Your task to perform on an android device: open app "Move to iOS" Image 0: 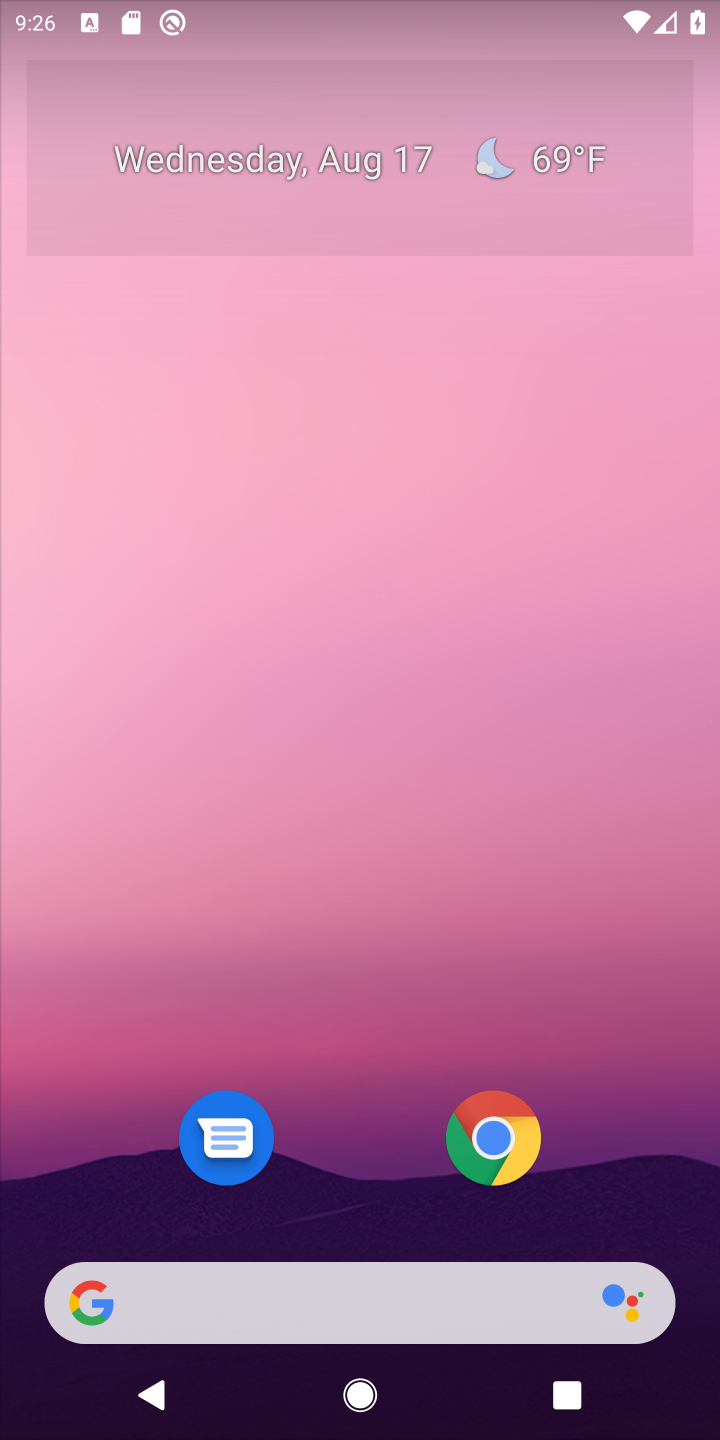
Step 0: drag from (410, 1173) to (403, 399)
Your task to perform on an android device: open app "Move to iOS" Image 1: 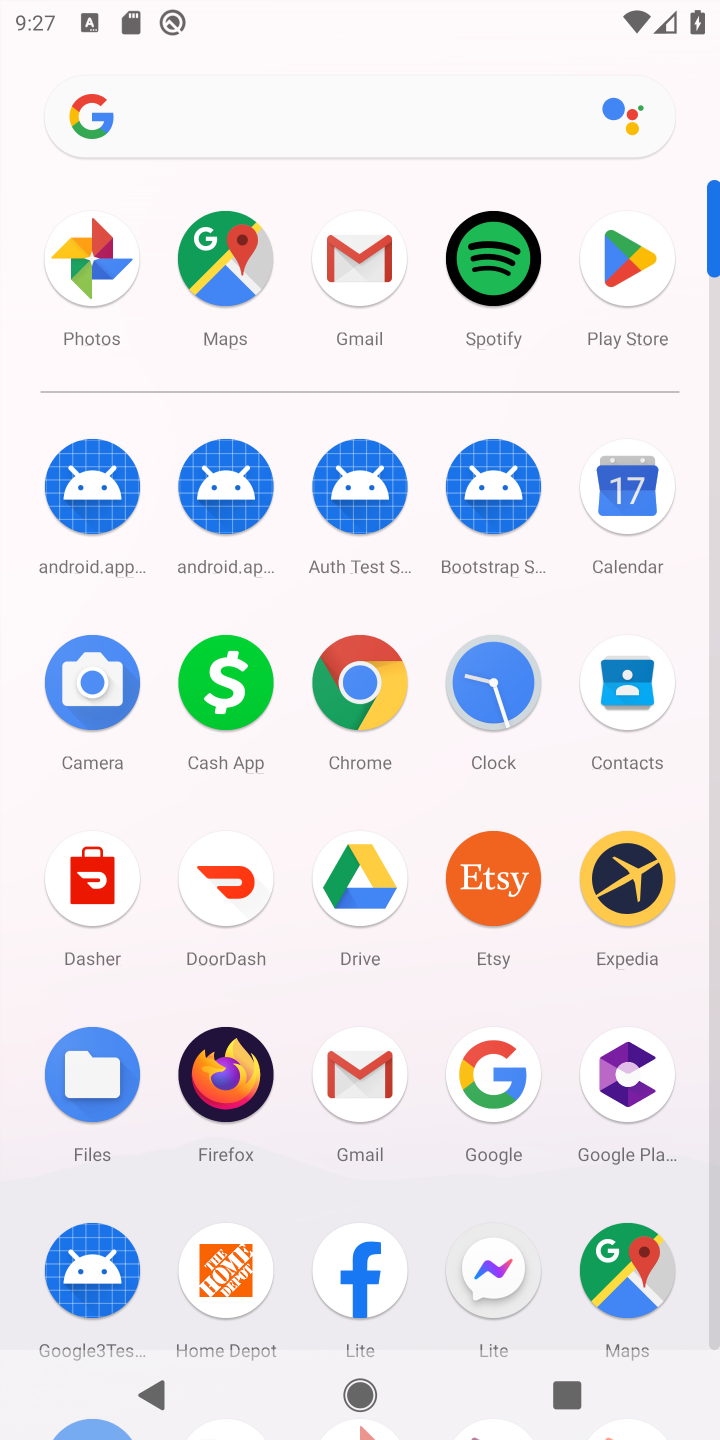
Step 1: click (616, 285)
Your task to perform on an android device: open app "Move to iOS" Image 2: 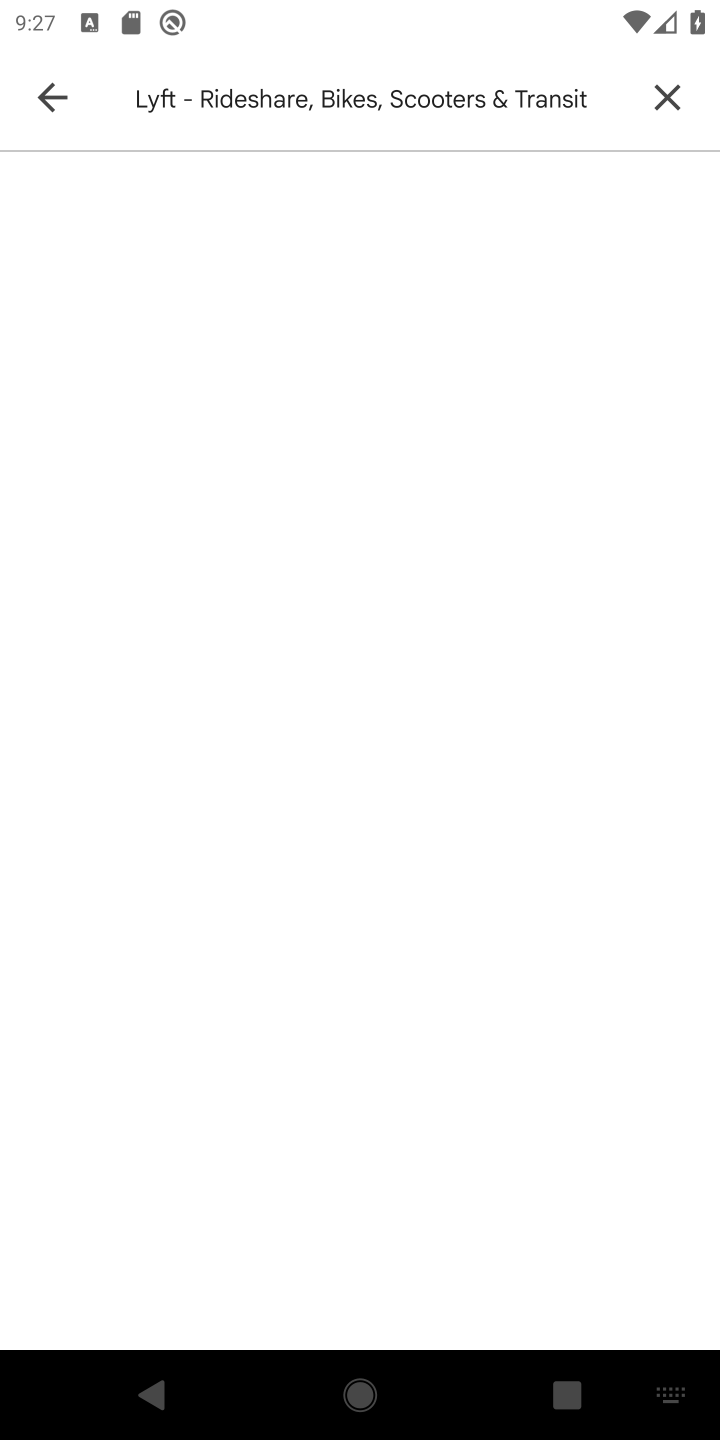
Step 2: click (649, 92)
Your task to perform on an android device: open app "Move to iOS" Image 3: 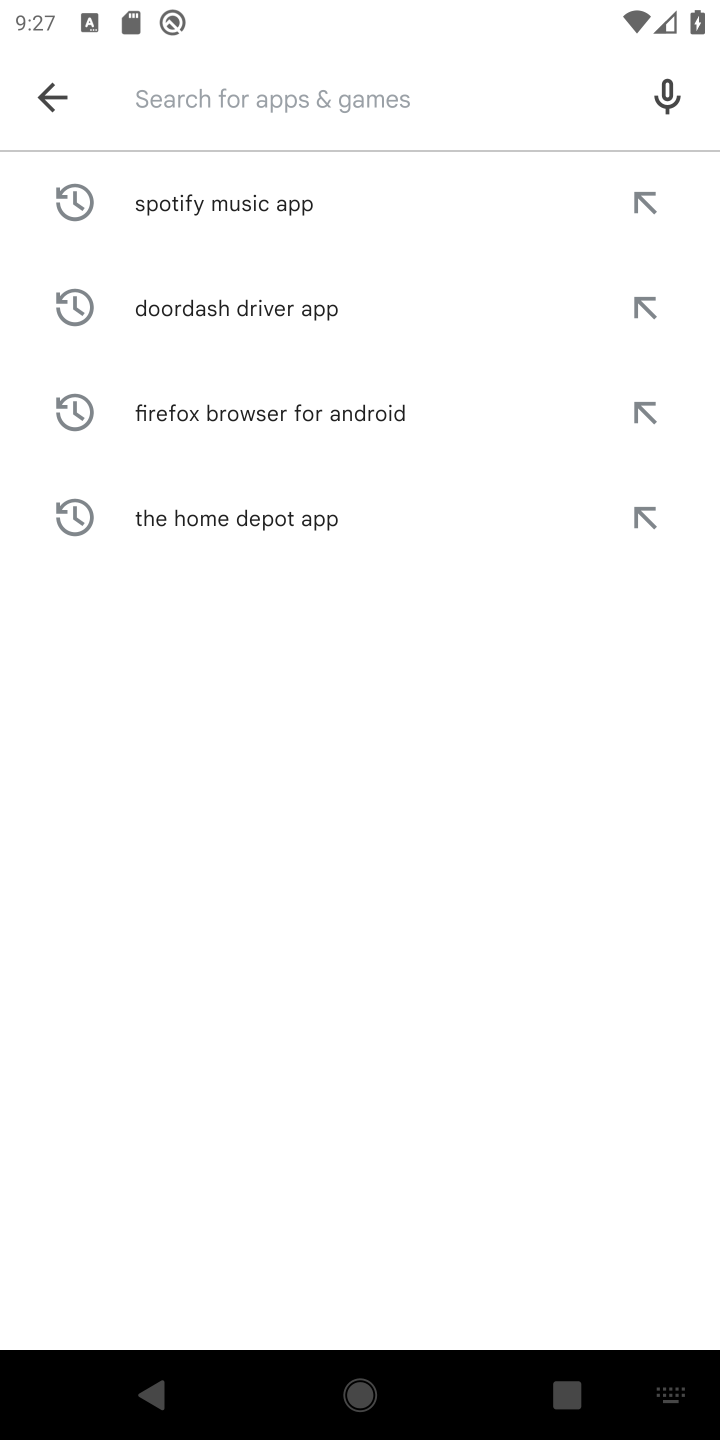
Step 3: click (388, 86)
Your task to perform on an android device: open app "Move to iOS" Image 4: 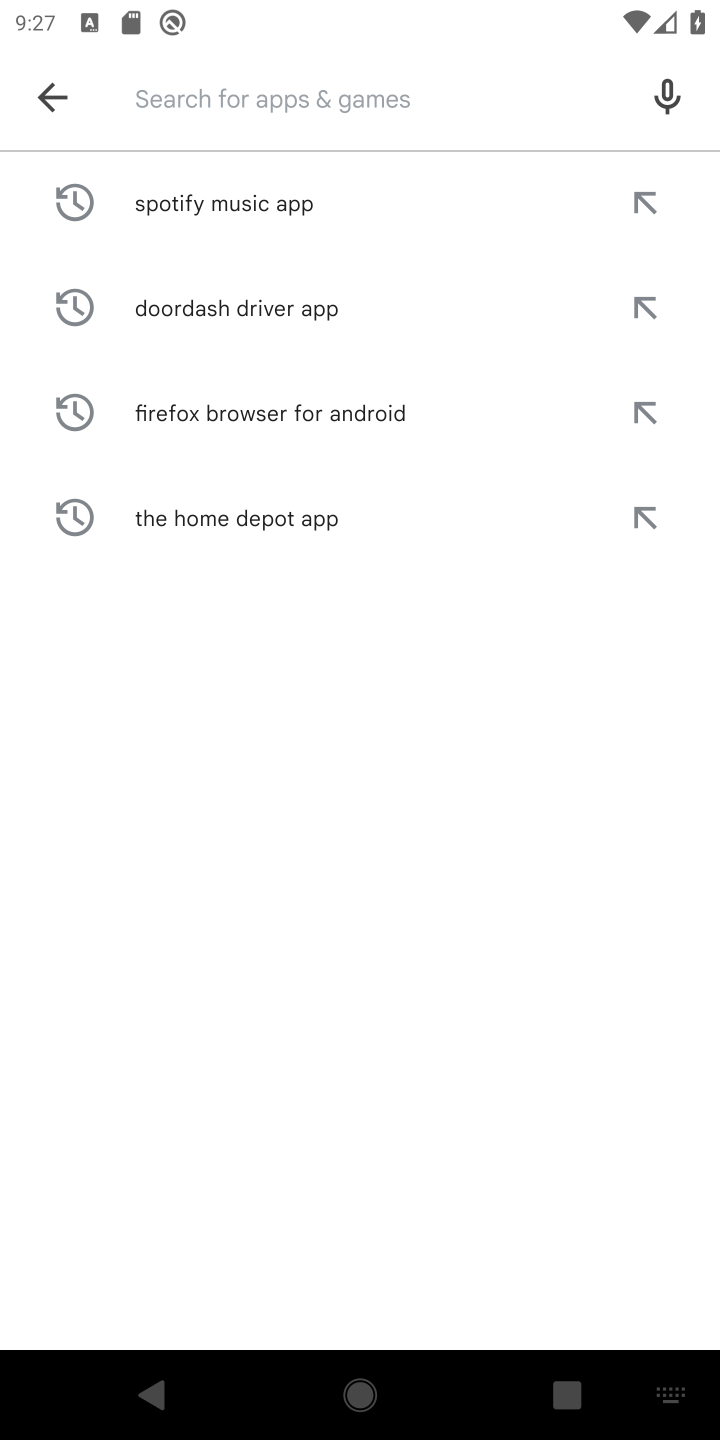
Step 4: type "ios "
Your task to perform on an android device: open app "Move to iOS" Image 5: 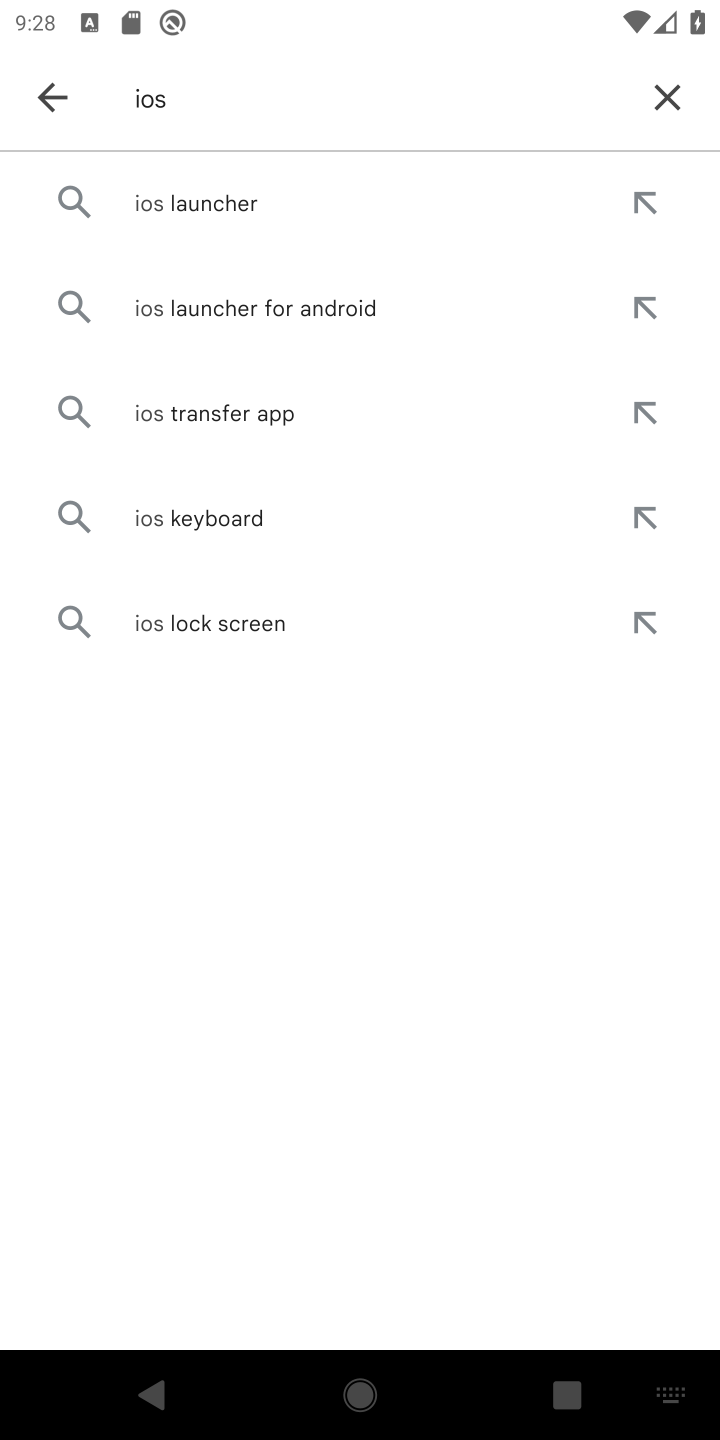
Step 5: click (251, 409)
Your task to perform on an android device: open app "Move to iOS" Image 6: 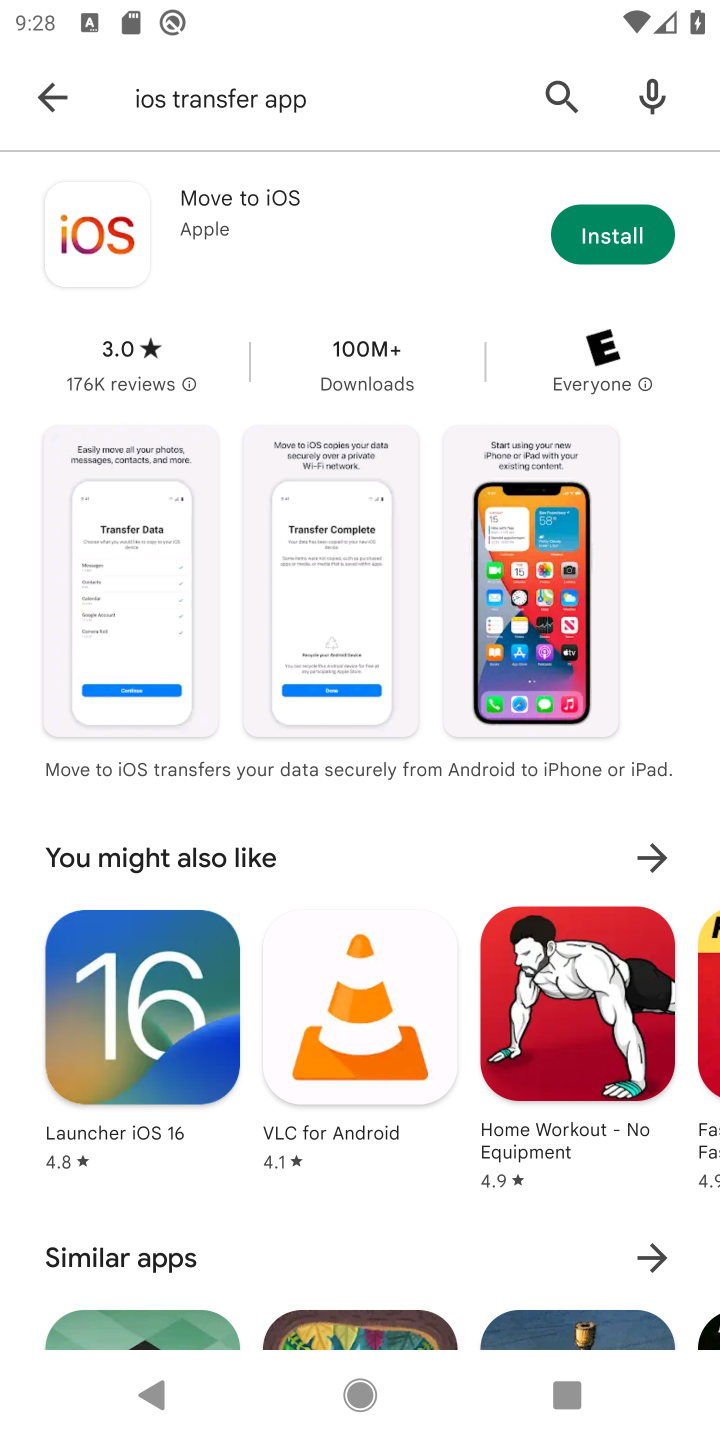
Step 6: click (567, 225)
Your task to perform on an android device: open app "Move to iOS" Image 7: 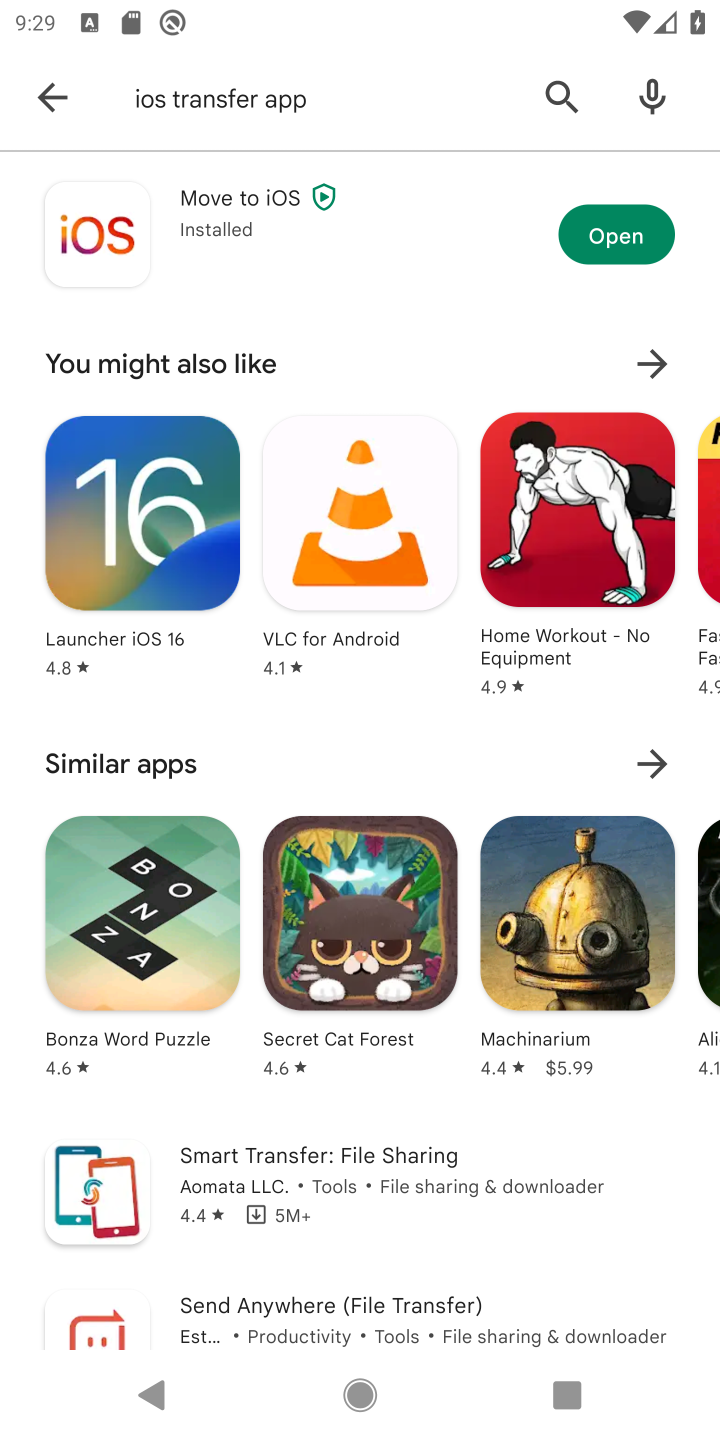
Step 7: click (600, 217)
Your task to perform on an android device: open app "Move to iOS" Image 8: 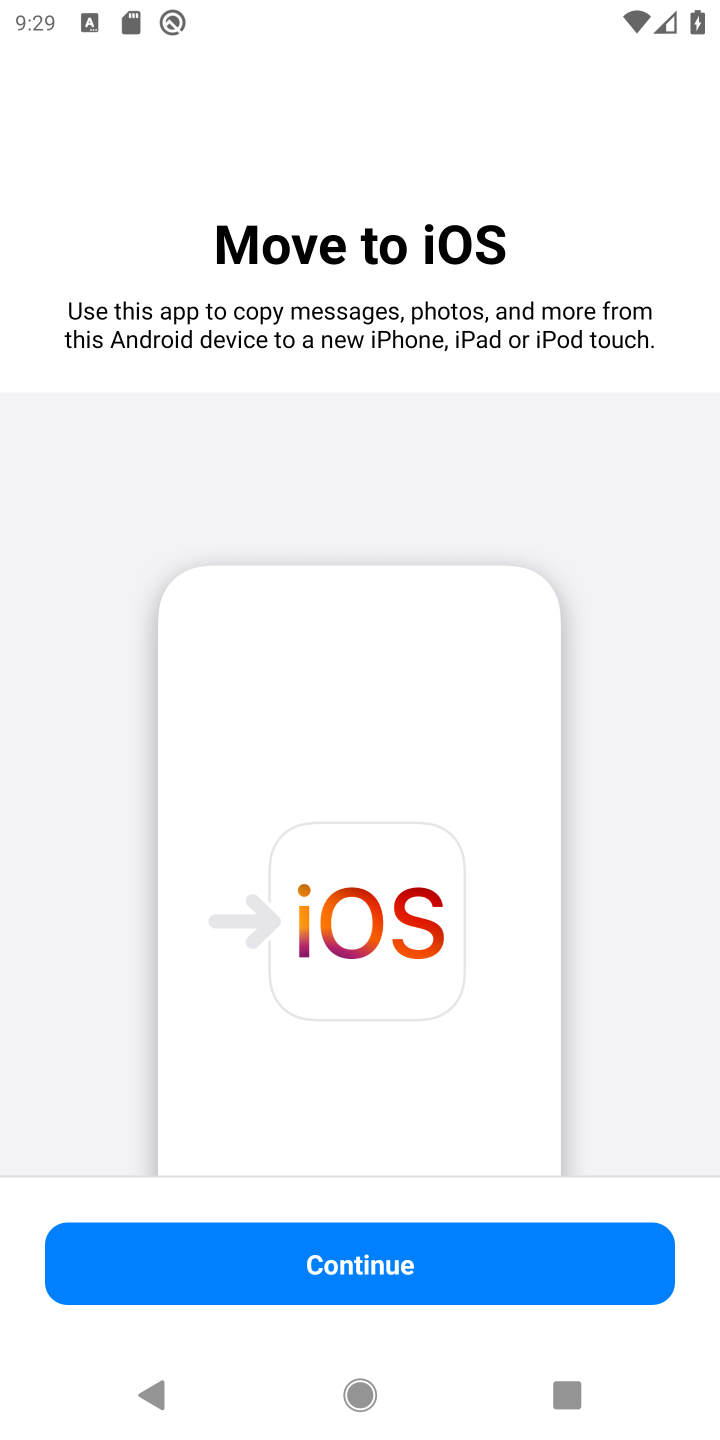
Step 8: task complete